Your task to perform on an android device: allow notifications from all sites in the chrome app Image 0: 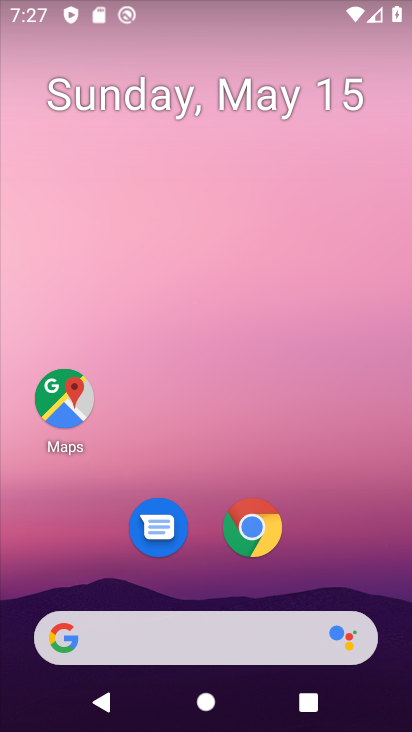
Step 0: drag from (157, 653) to (369, 63)
Your task to perform on an android device: allow notifications from all sites in the chrome app Image 1: 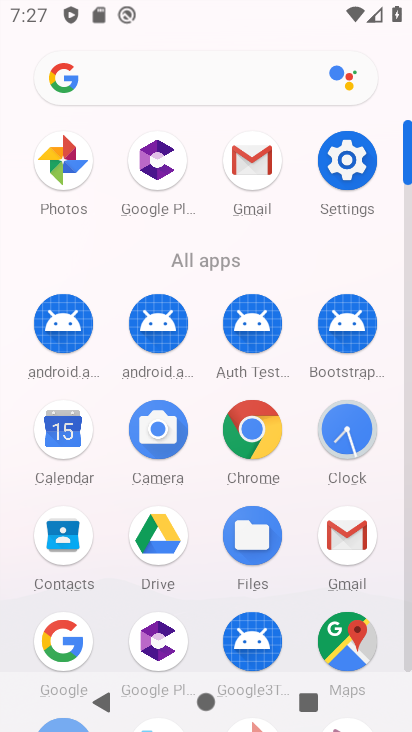
Step 1: click (252, 441)
Your task to perform on an android device: allow notifications from all sites in the chrome app Image 2: 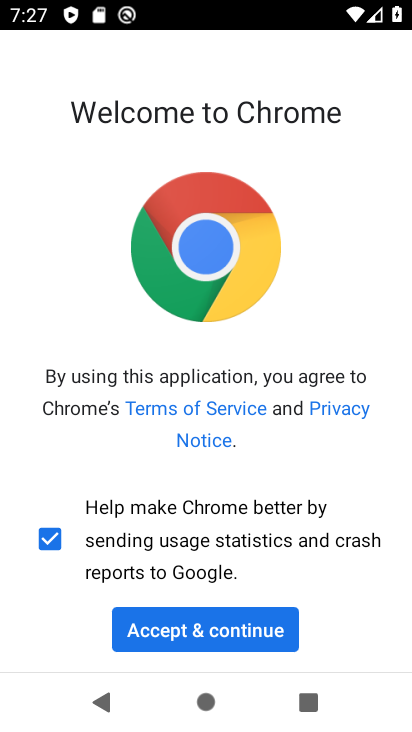
Step 2: click (199, 611)
Your task to perform on an android device: allow notifications from all sites in the chrome app Image 3: 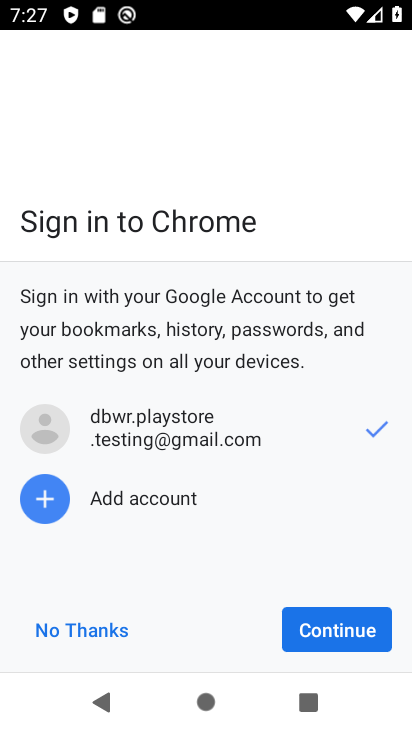
Step 3: click (337, 627)
Your task to perform on an android device: allow notifications from all sites in the chrome app Image 4: 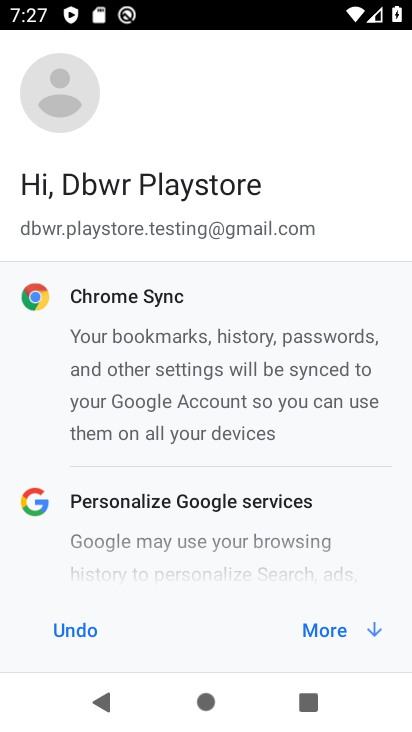
Step 4: click (337, 626)
Your task to perform on an android device: allow notifications from all sites in the chrome app Image 5: 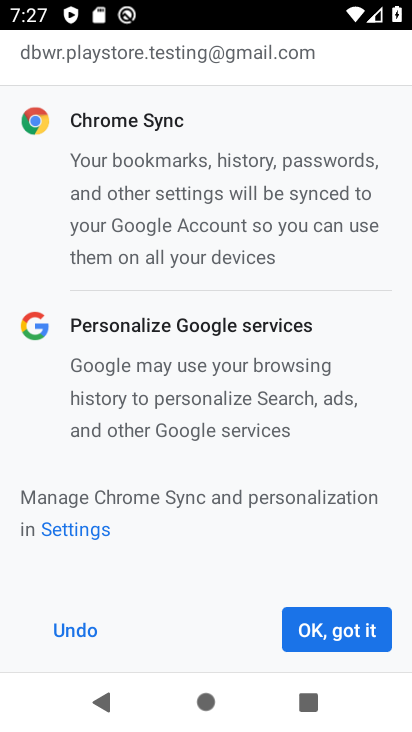
Step 5: click (337, 625)
Your task to perform on an android device: allow notifications from all sites in the chrome app Image 6: 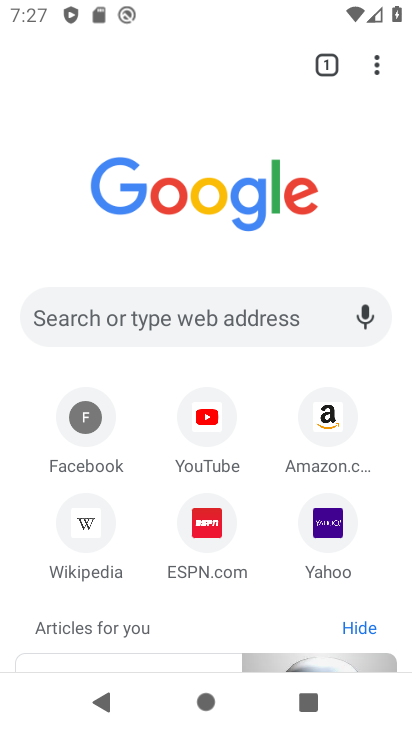
Step 6: drag from (373, 72) to (220, 542)
Your task to perform on an android device: allow notifications from all sites in the chrome app Image 7: 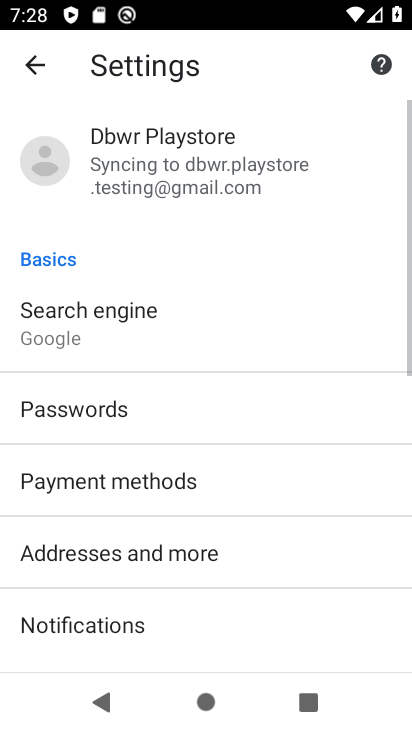
Step 7: drag from (166, 584) to (338, 157)
Your task to perform on an android device: allow notifications from all sites in the chrome app Image 8: 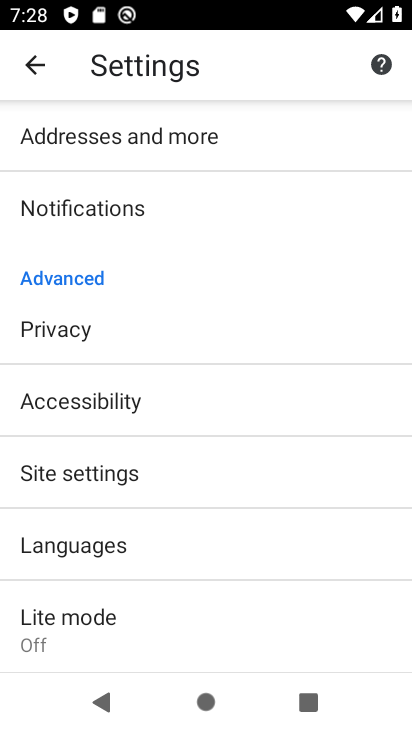
Step 8: click (89, 463)
Your task to perform on an android device: allow notifications from all sites in the chrome app Image 9: 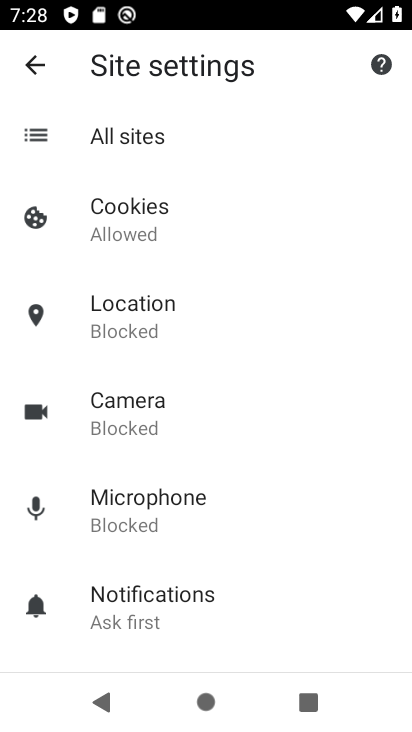
Step 9: click (176, 606)
Your task to perform on an android device: allow notifications from all sites in the chrome app Image 10: 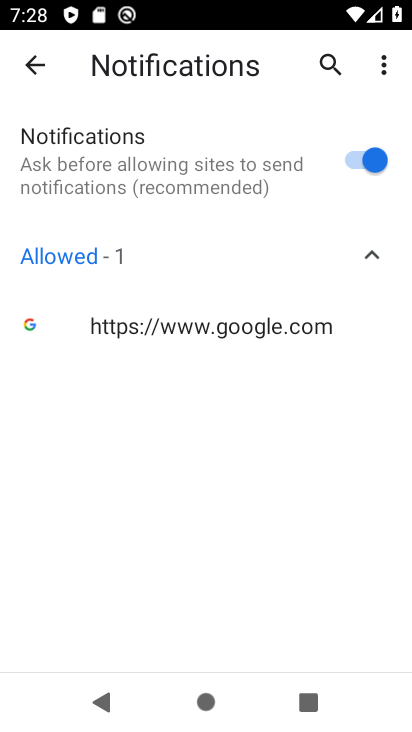
Step 10: task complete